Your task to perform on an android device: Open Maps and search for coffee Image 0: 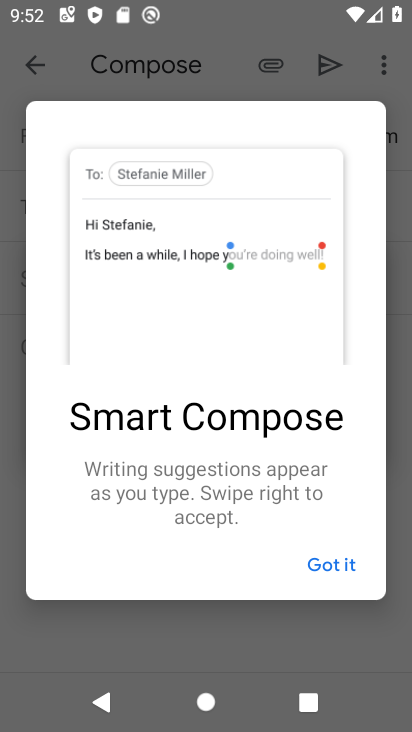
Step 0: press home button
Your task to perform on an android device: Open Maps and search for coffee Image 1: 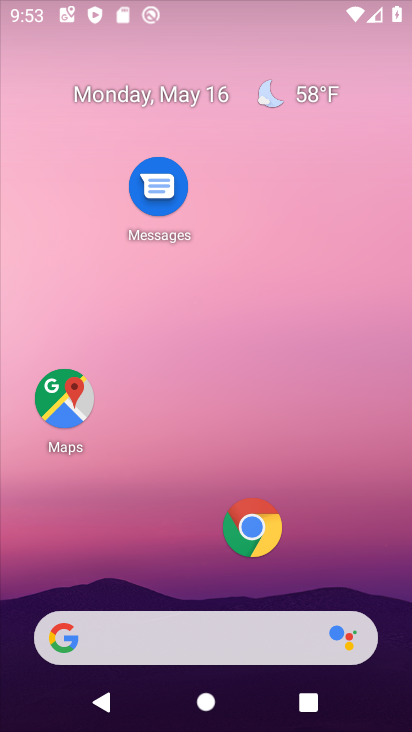
Step 1: click (72, 397)
Your task to perform on an android device: Open Maps and search for coffee Image 2: 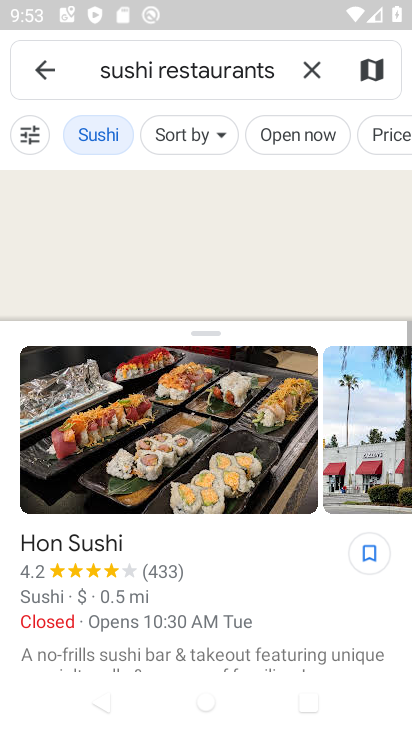
Step 2: click (307, 68)
Your task to perform on an android device: Open Maps and search for coffee Image 3: 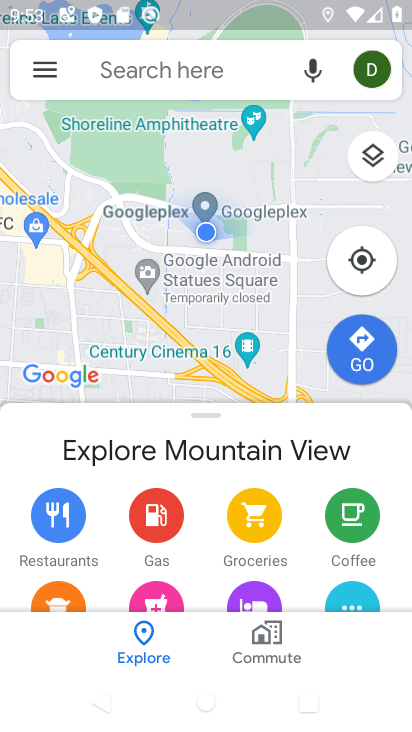
Step 3: click (183, 70)
Your task to perform on an android device: Open Maps and search for coffee Image 4: 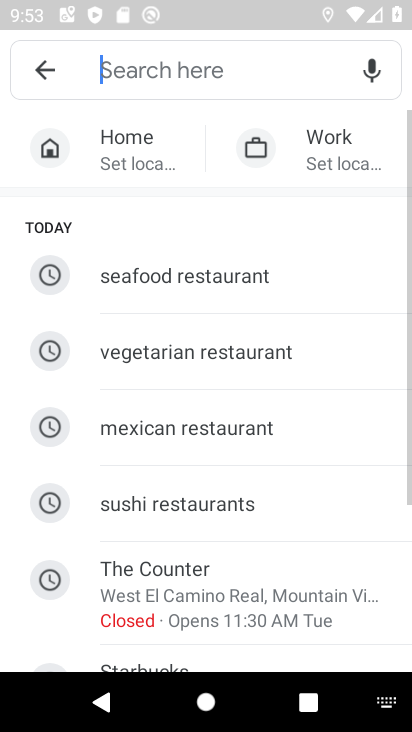
Step 4: drag from (230, 560) to (252, 122)
Your task to perform on an android device: Open Maps and search for coffee Image 5: 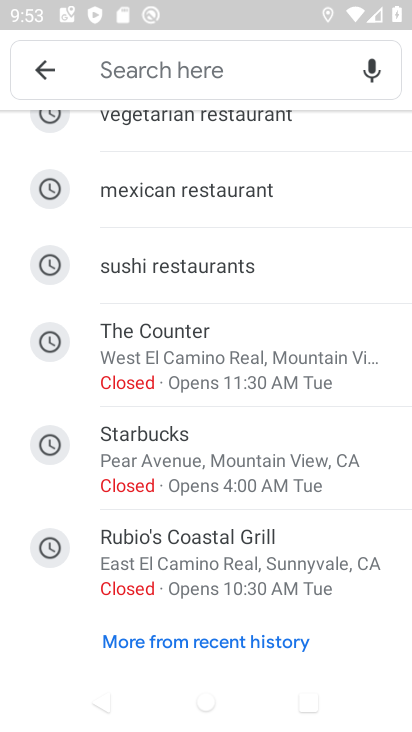
Step 5: click (182, 74)
Your task to perform on an android device: Open Maps and search for coffee Image 6: 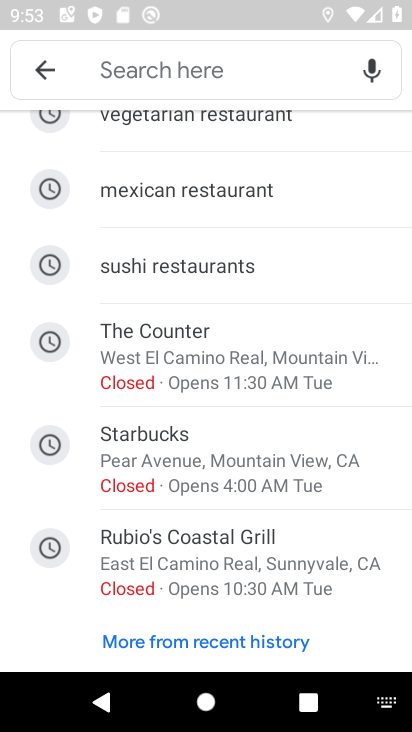
Step 6: type "coffee"
Your task to perform on an android device: Open Maps and search for coffee Image 7: 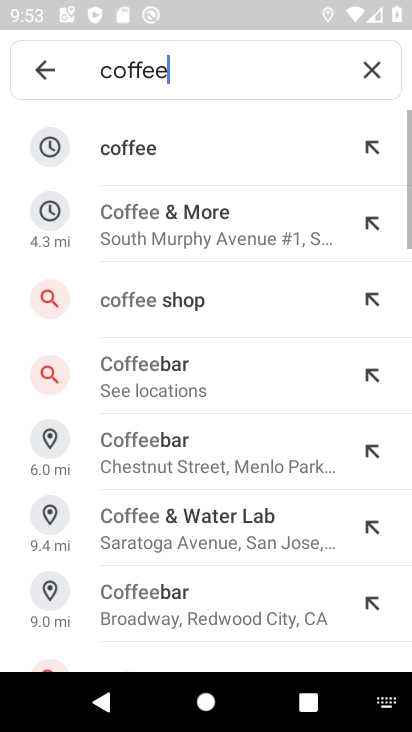
Step 7: click (135, 161)
Your task to perform on an android device: Open Maps and search for coffee Image 8: 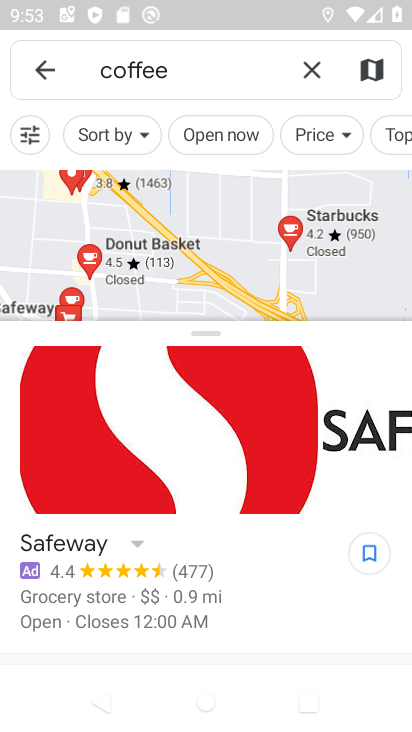
Step 8: task complete